Your task to perform on an android device: Open accessibility settings Image 0: 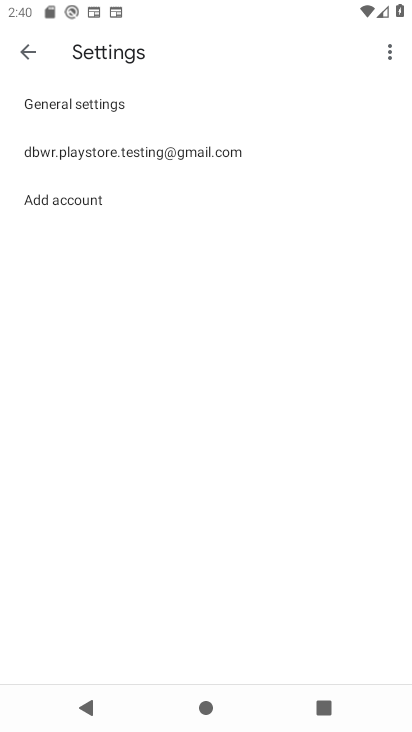
Step 0: press home button
Your task to perform on an android device: Open accessibility settings Image 1: 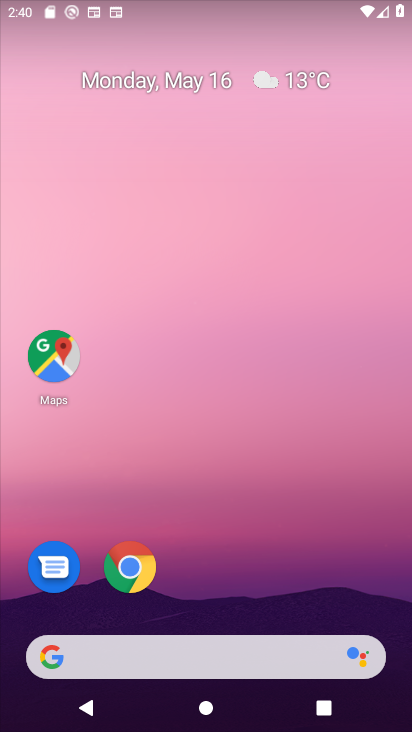
Step 1: drag from (331, 572) to (303, 2)
Your task to perform on an android device: Open accessibility settings Image 2: 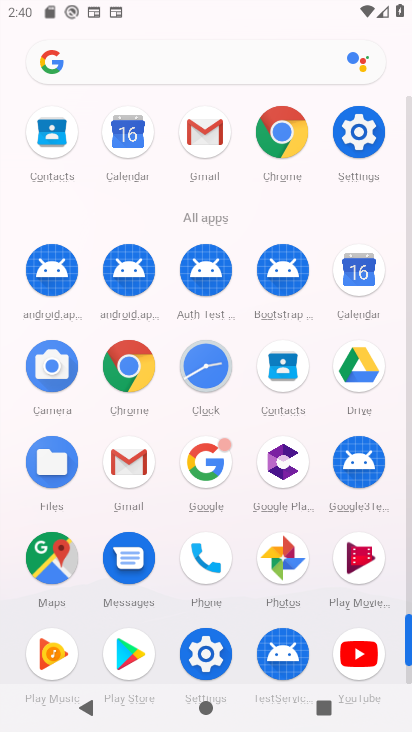
Step 2: click (365, 145)
Your task to perform on an android device: Open accessibility settings Image 3: 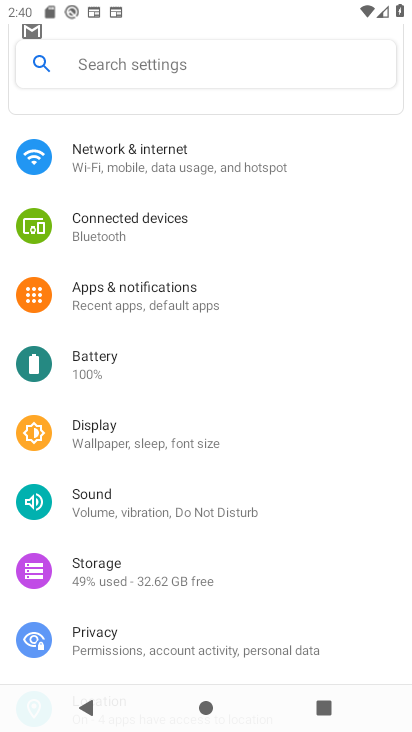
Step 3: drag from (212, 625) to (190, 178)
Your task to perform on an android device: Open accessibility settings Image 4: 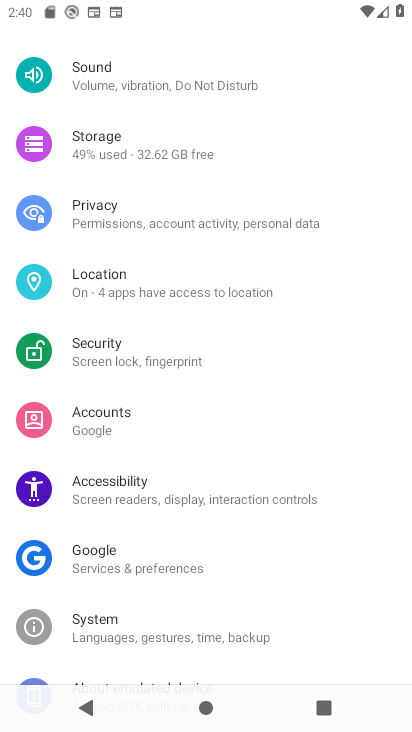
Step 4: click (152, 490)
Your task to perform on an android device: Open accessibility settings Image 5: 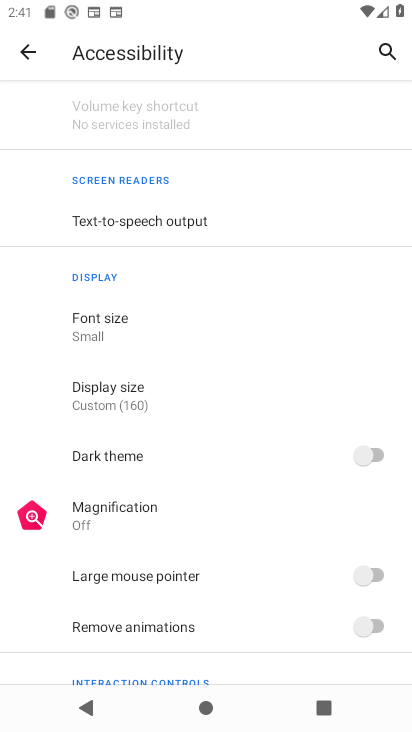
Step 5: task complete